Your task to perform on an android device: turn off smart reply in the gmail app Image 0: 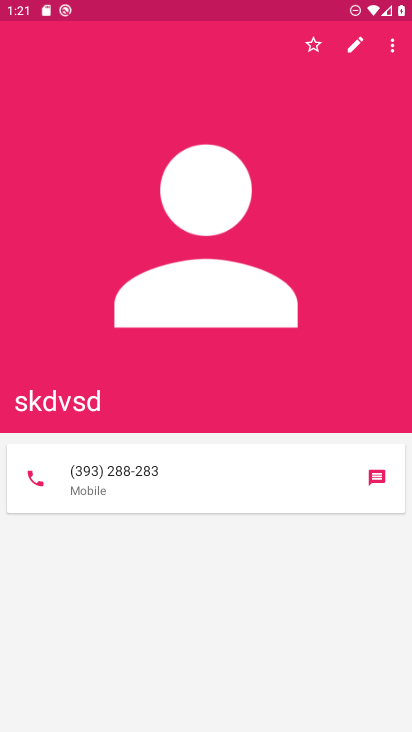
Step 0: press home button
Your task to perform on an android device: turn off smart reply in the gmail app Image 1: 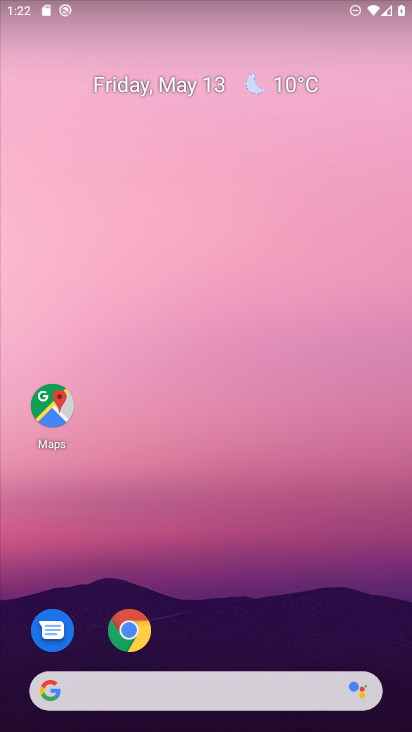
Step 1: drag from (240, 694) to (160, 214)
Your task to perform on an android device: turn off smart reply in the gmail app Image 2: 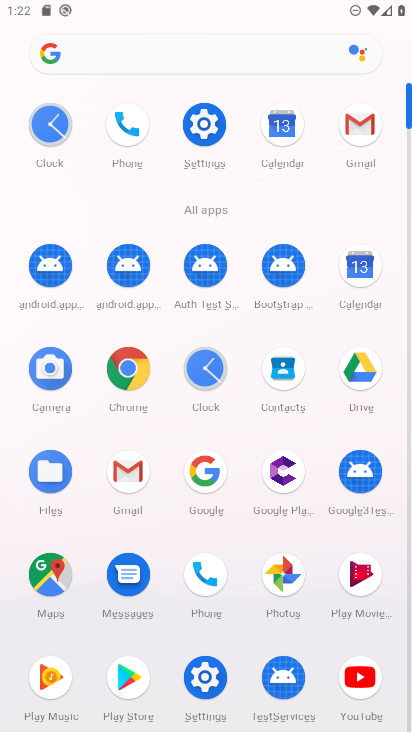
Step 2: drag from (136, 345) to (87, 590)
Your task to perform on an android device: turn off smart reply in the gmail app Image 3: 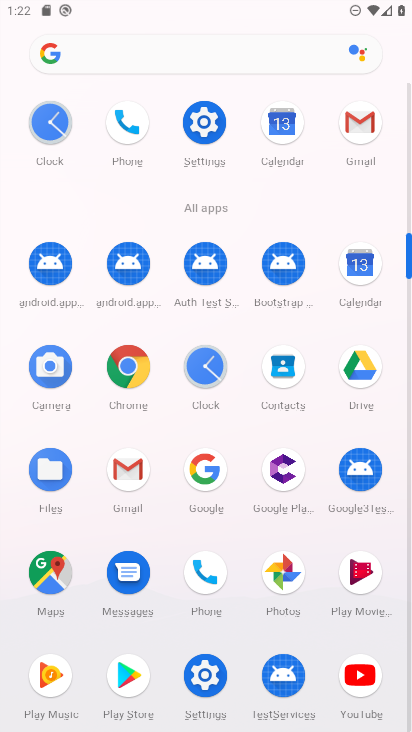
Step 3: click (134, 483)
Your task to perform on an android device: turn off smart reply in the gmail app Image 4: 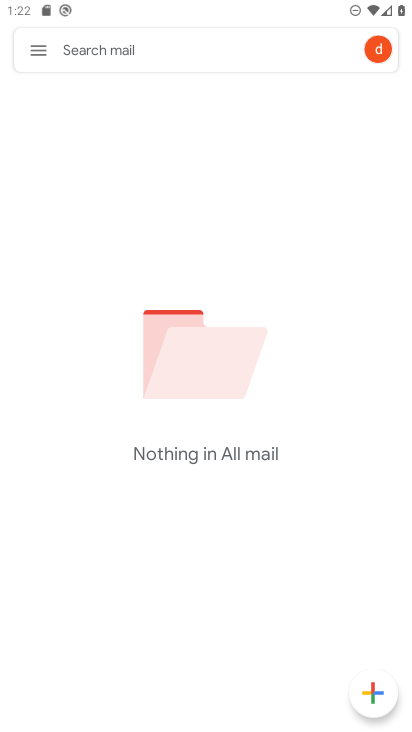
Step 4: click (44, 53)
Your task to perform on an android device: turn off smart reply in the gmail app Image 5: 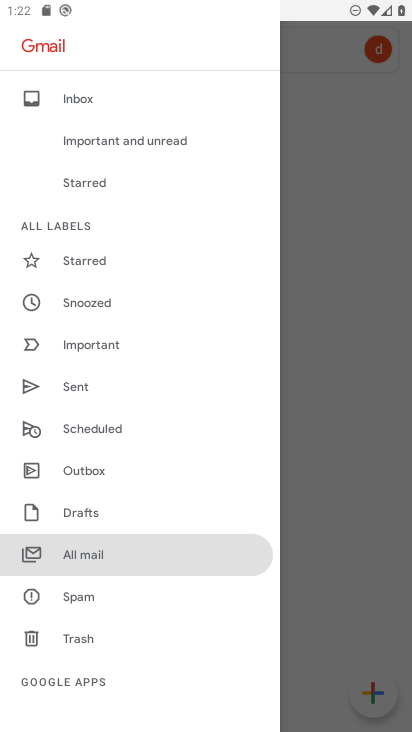
Step 5: drag from (110, 653) to (122, 358)
Your task to perform on an android device: turn off smart reply in the gmail app Image 6: 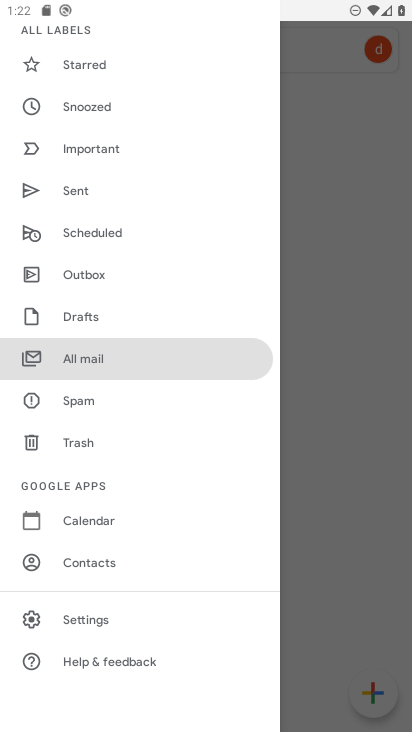
Step 6: click (105, 618)
Your task to perform on an android device: turn off smart reply in the gmail app Image 7: 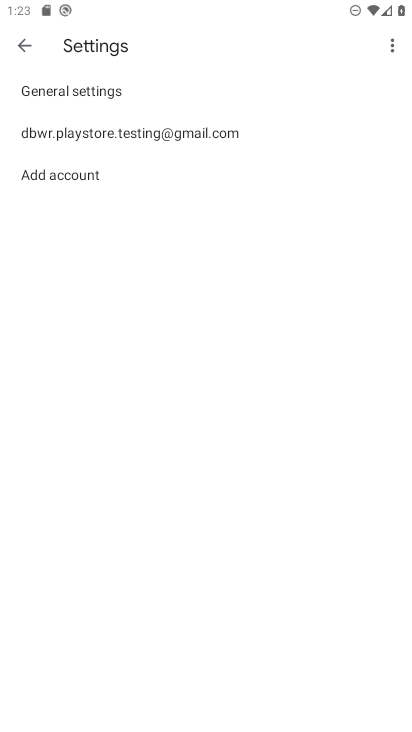
Step 7: click (93, 126)
Your task to perform on an android device: turn off smart reply in the gmail app Image 8: 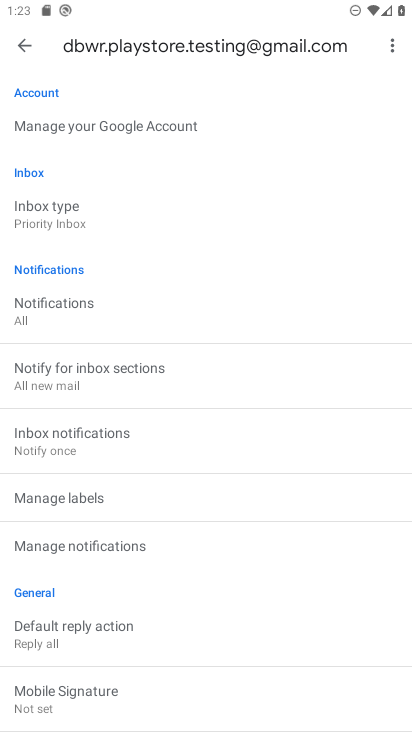
Step 8: drag from (141, 596) to (176, 242)
Your task to perform on an android device: turn off smart reply in the gmail app Image 9: 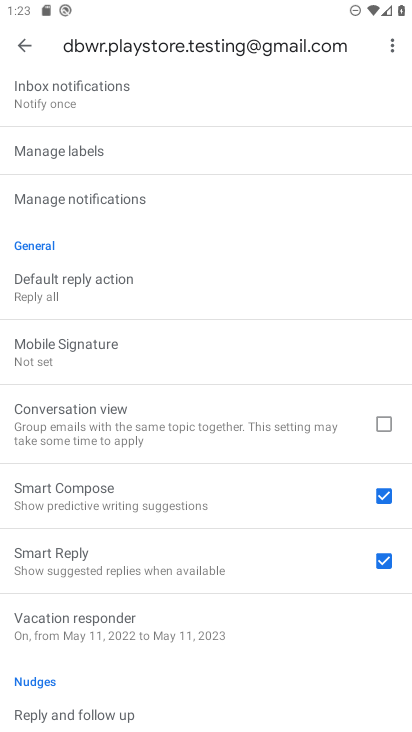
Step 9: click (378, 564)
Your task to perform on an android device: turn off smart reply in the gmail app Image 10: 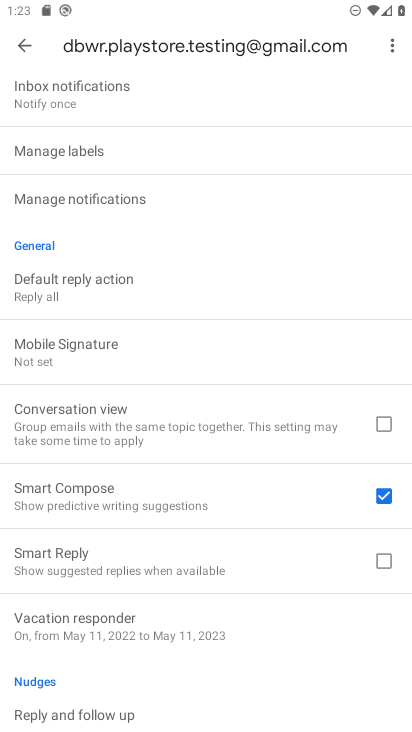
Step 10: task complete